Your task to perform on an android device: change your default location settings in chrome Image 0: 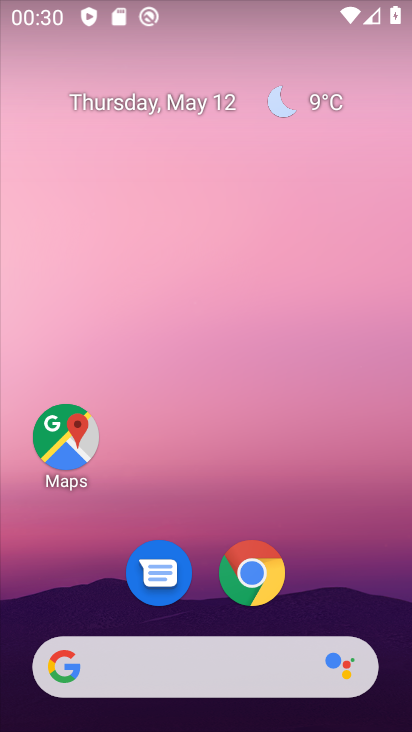
Step 0: drag from (204, 602) to (209, 7)
Your task to perform on an android device: change your default location settings in chrome Image 1: 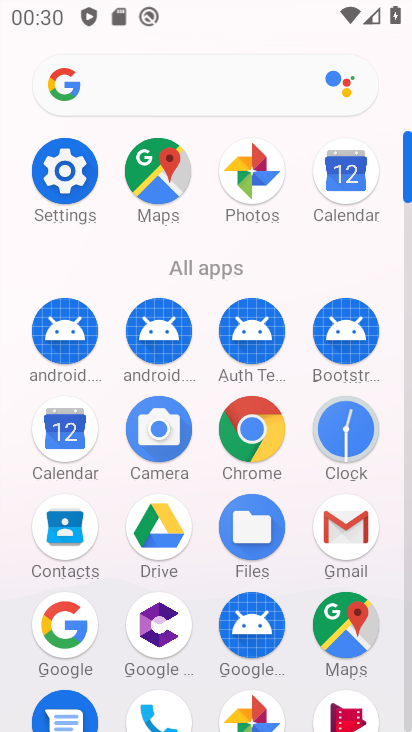
Step 1: click (249, 416)
Your task to perform on an android device: change your default location settings in chrome Image 2: 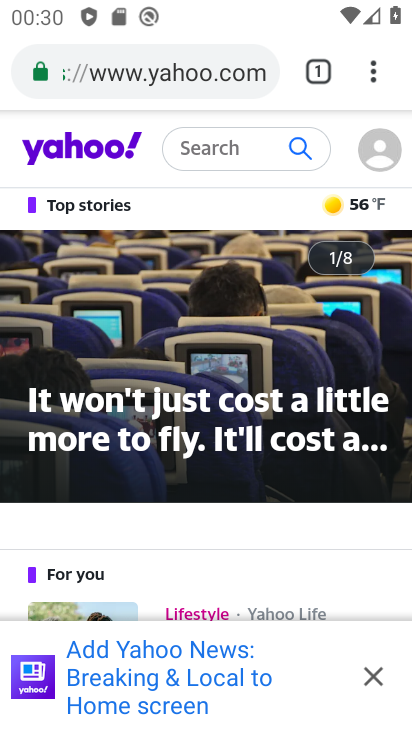
Step 2: click (376, 679)
Your task to perform on an android device: change your default location settings in chrome Image 3: 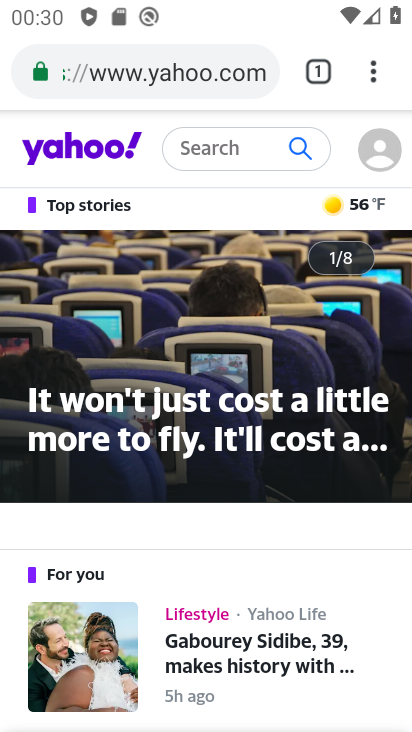
Step 3: click (369, 81)
Your task to perform on an android device: change your default location settings in chrome Image 4: 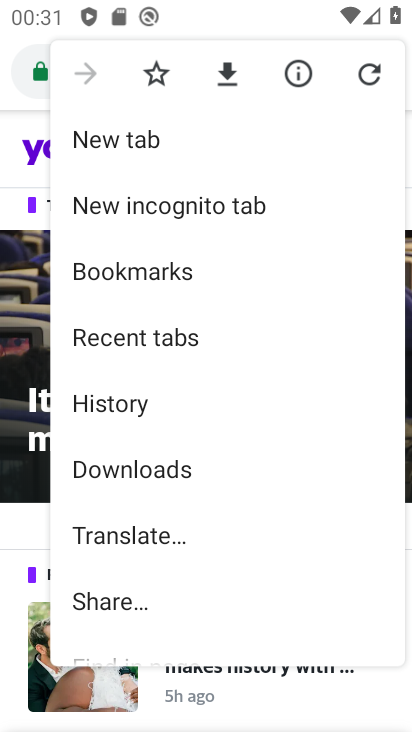
Step 4: drag from (141, 520) to (186, 206)
Your task to perform on an android device: change your default location settings in chrome Image 5: 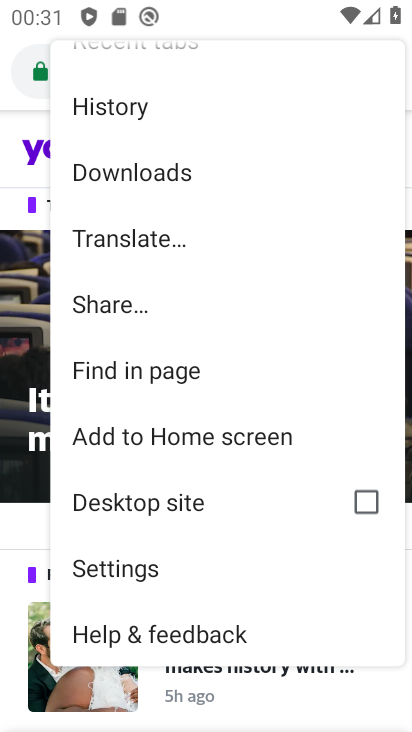
Step 5: click (118, 565)
Your task to perform on an android device: change your default location settings in chrome Image 6: 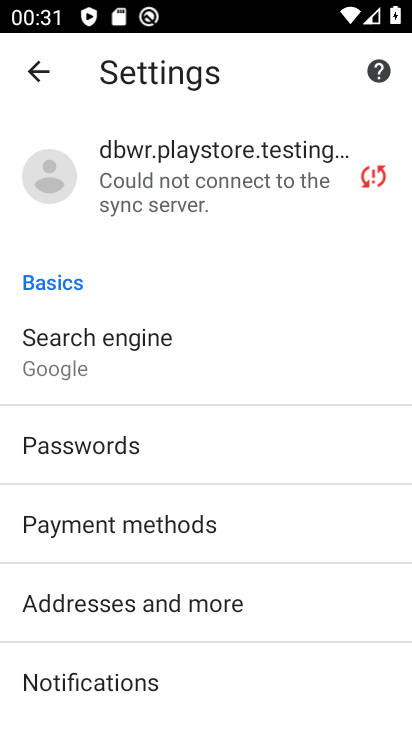
Step 6: drag from (138, 593) to (244, 93)
Your task to perform on an android device: change your default location settings in chrome Image 7: 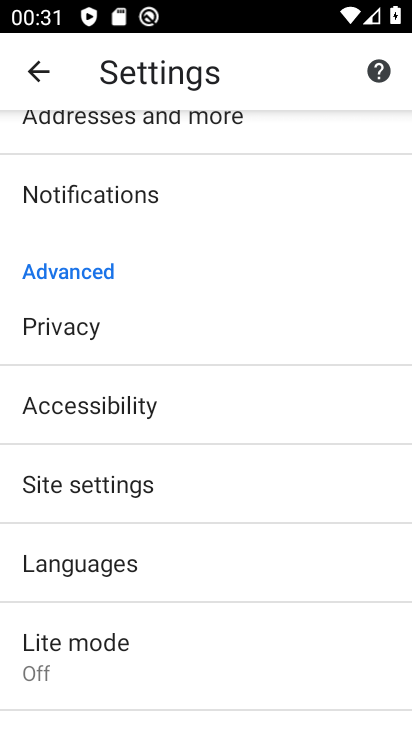
Step 7: click (123, 484)
Your task to perform on an android device: change your default location settings in chrome Image 8: 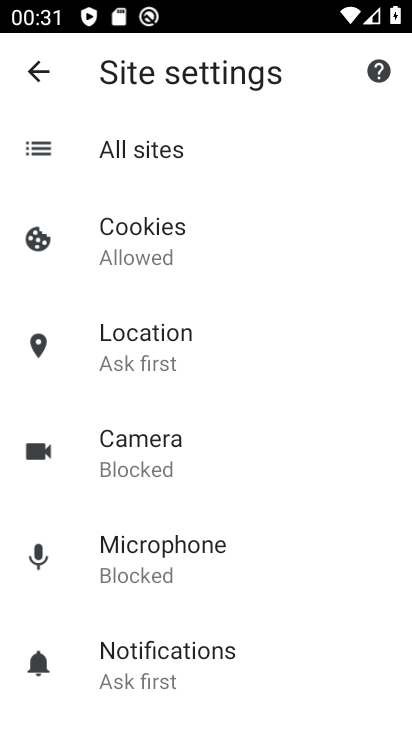
Step 8: drag from (153, 590) to (186, 327)
Your task to perform on an android device: change your default location settings in chrome Image 9: 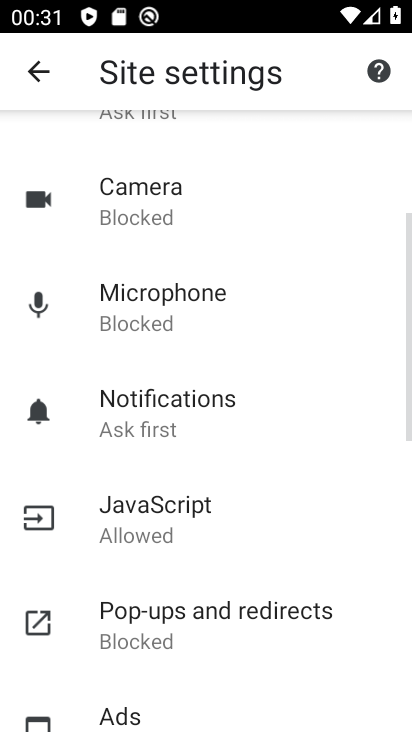
Step 9: drag from (150, 153) to (105, 524)
Your task to perform on an android device: change your default location settings in chrome Image 10: 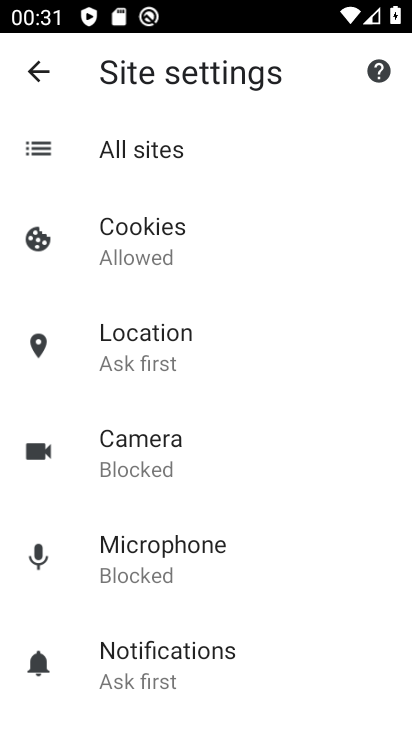
Step 10: click (134, 356)
Your task to perform on an android device: change your default location settings in chrome Image 11: 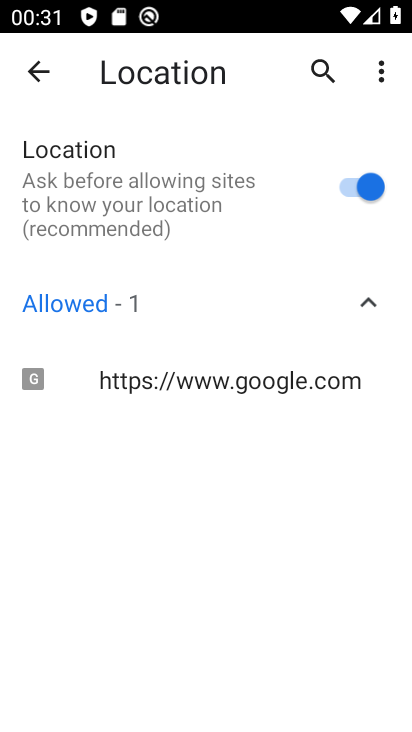
Step 11: click (330, 195)
Your task to perform on an android device: change your default location settings in chrome Image 12: 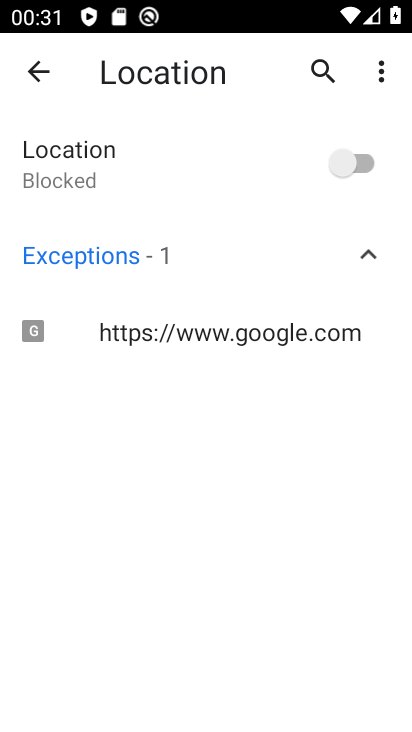
Step 12: task complete